Your task to perform on an android device: turn on data saver in the chrome app Image 0: 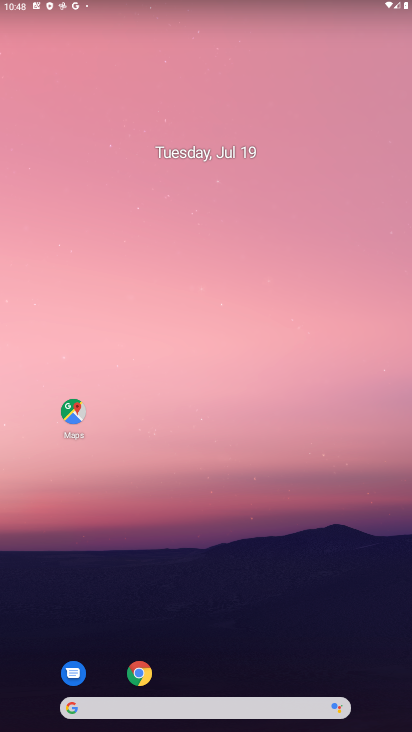
Step 0: click (141, 681)
Your task to perform on an android device: turn on data saver in the chrome app Image 1: 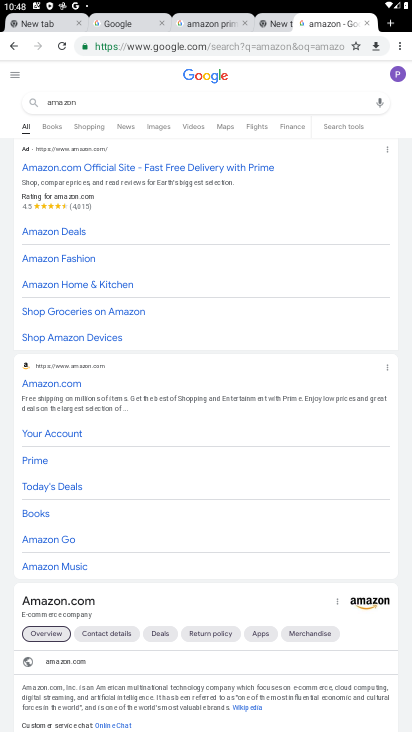
Step 1: click (398, 44)
Your task to perform on an android device: turn on data saver in the chrome app Image 2: 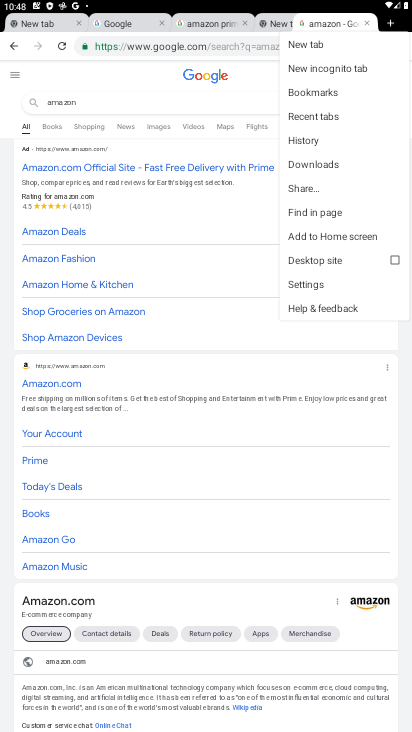
Step 2: click (341, 286)
Your task to perform on an android device: turn on data saver in the chrome app Image 3: 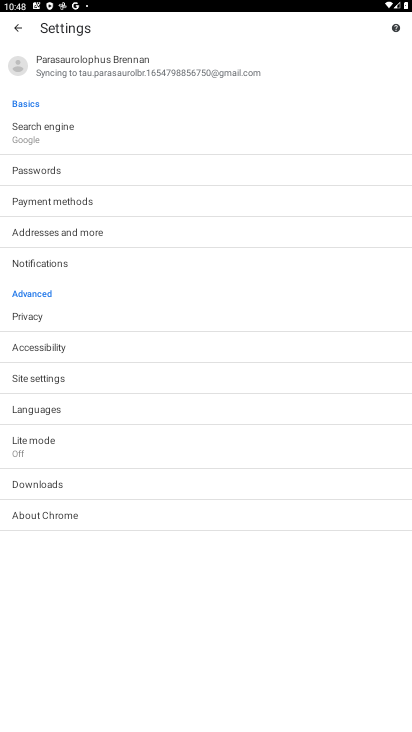
Step 3: click (116, 441)
Your task to perform on an android device: turn on data saver in the chrome app Image 4: 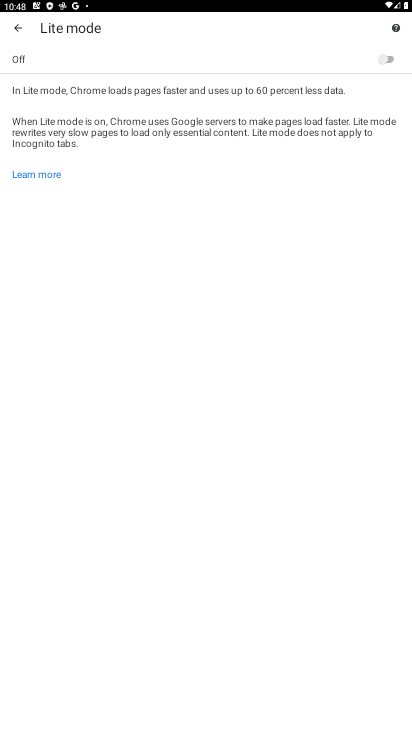
Step 4: click (381, 64)
Your task to perform on an android device: turn on data saver in the chrome app Image 5: 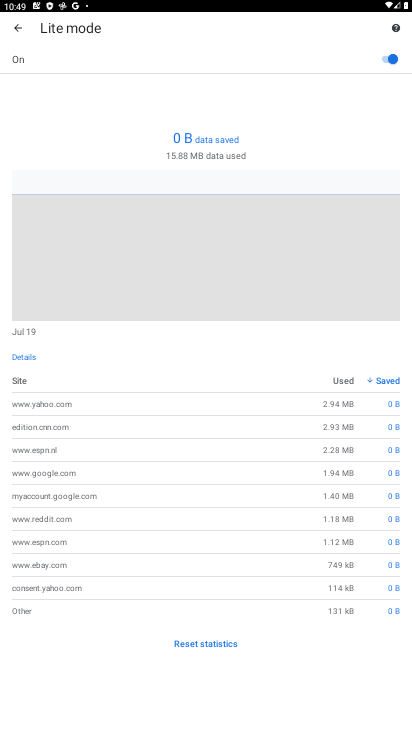
Step 5: task complete